Your task to perform on an android device: make emails show in primary in the gmail app Image 0: 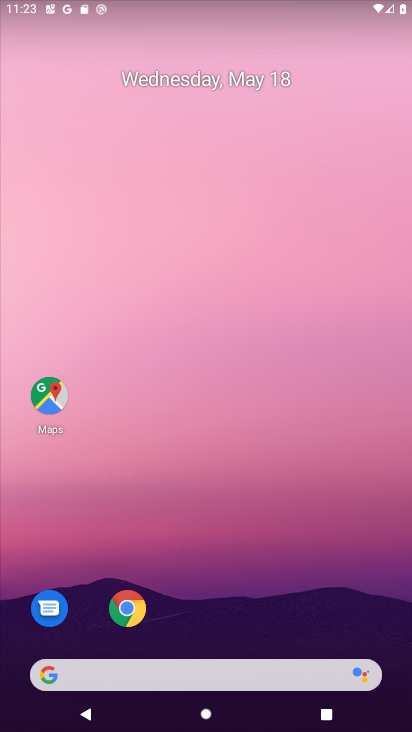
Step 0: drag from (181, 554) to (178, 129)
Your task to perform on an android device: make emails show in primary in the gmail app Image 1: 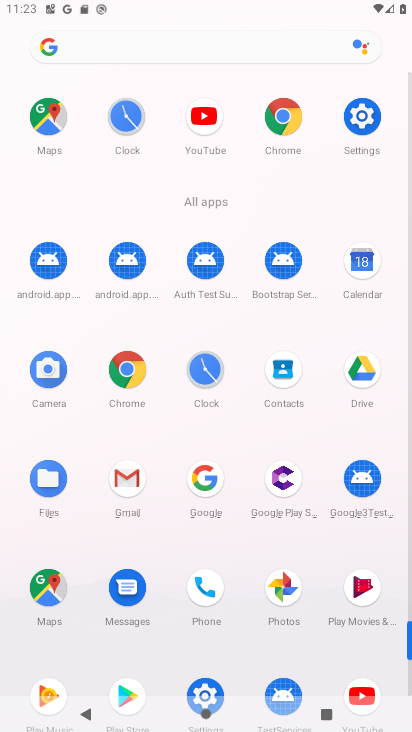
Step 1: click (135, 483)
Your task to perform on an android device: make emails show in primary in the gmail app Image 2: 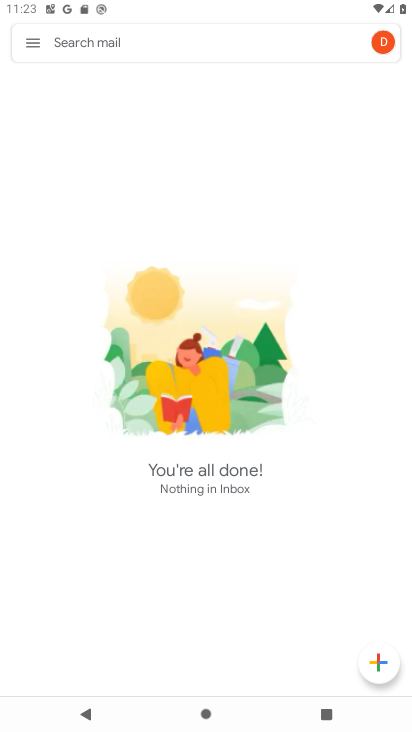
Step 2: click (30, 43)
Your task to perform on an android device: make emails show in primary in the gmail app Image 3: 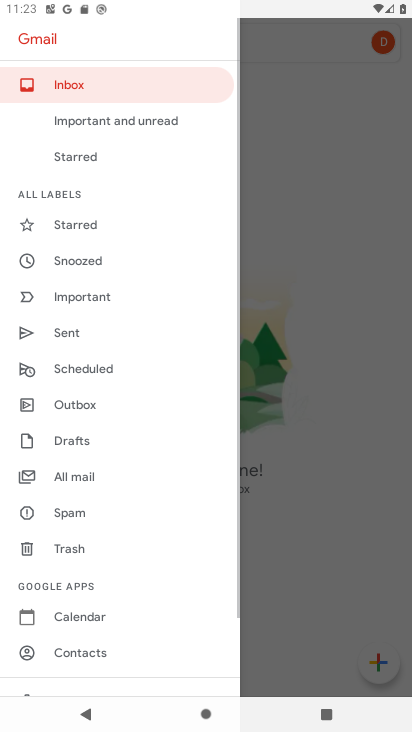
Step 3: drag from (86, 639) to (106, 251)
Your task to perform on an android device: make emails show in primary in the gmail app Image 4: 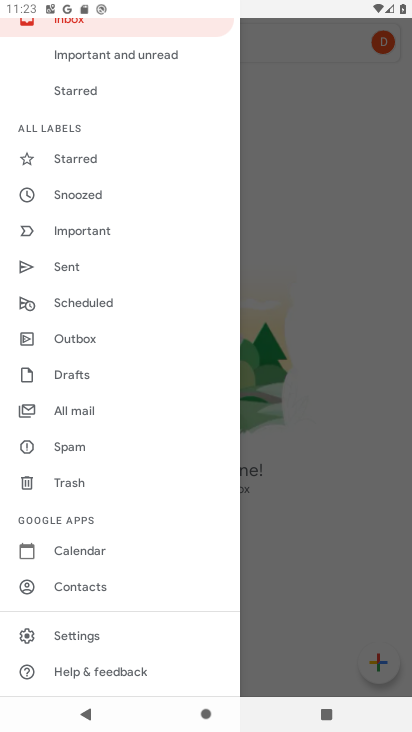
Step 4: click (68, 636)
Your task to perform on an android device: make emails show in primary in the gmail app Image 5: 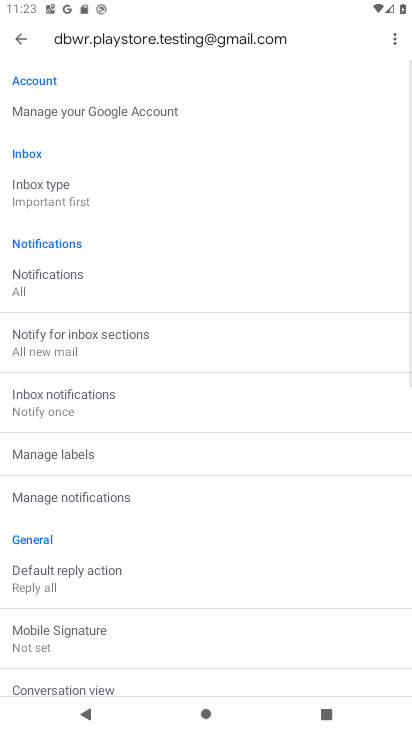
Step 5: drag from (68, 662) to (98, 425)
Your task to perform on an android device: make emails show in primary in the gmail app Image 6: 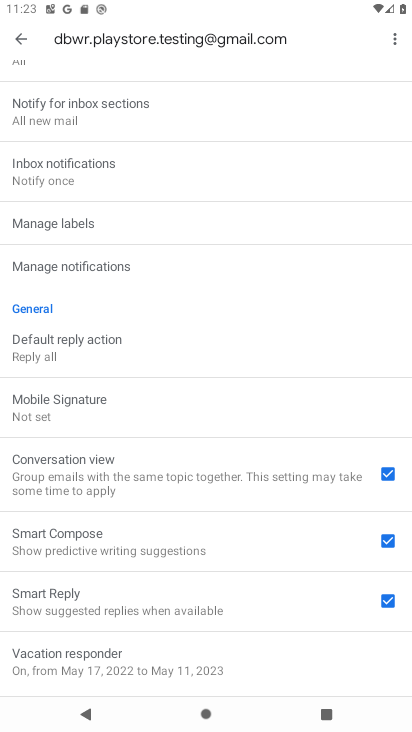
Step 6: drag from (48, 611) to (73, 505)
Your task to perform on an android device: make emails show in primary in the gmail app Image 7: 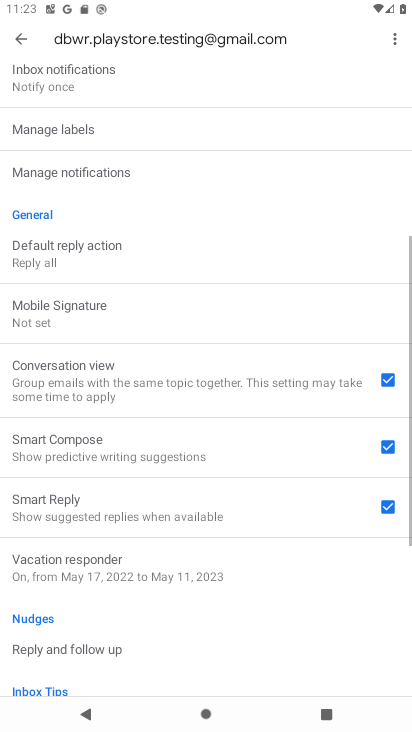
Step 7: drag from (79, 490) to (71, 682)
Your task to perform on an android device: make emails show in primary in the gmail app Image 8: 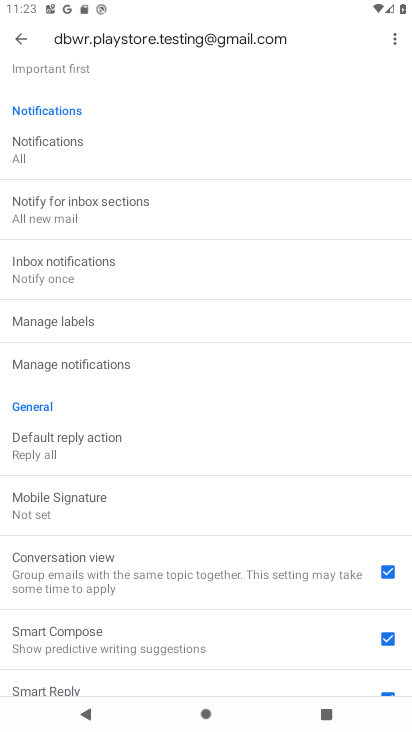
Step 8: drag from (80, 138) to (42, 281)
Your task to perform on an android device: make emails show in primary in the gmail app Image 9: 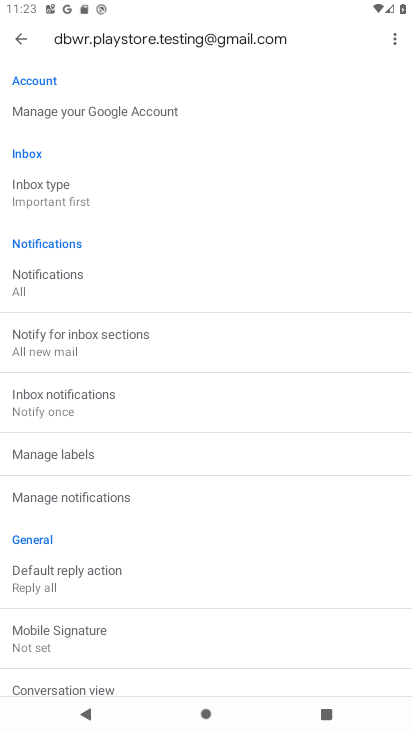
Step 9: click (49, 201)
Your task to perform on an android device: make emails show in primary in the gmail app Image 10: 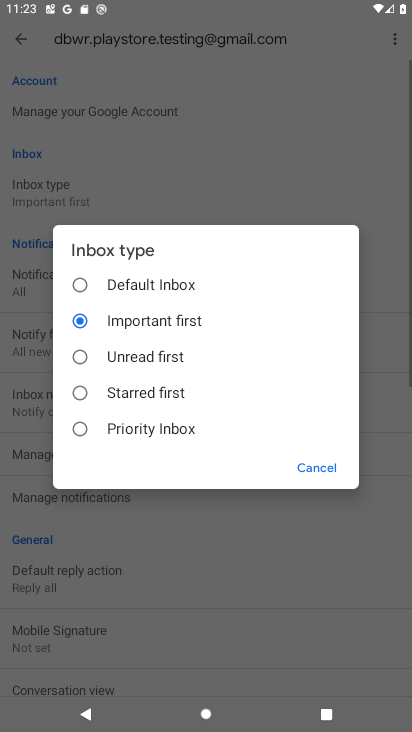
Step 10: click (80, 284)
Your task to perform on an android device: make emails show in primary in the gmail app Image 11: 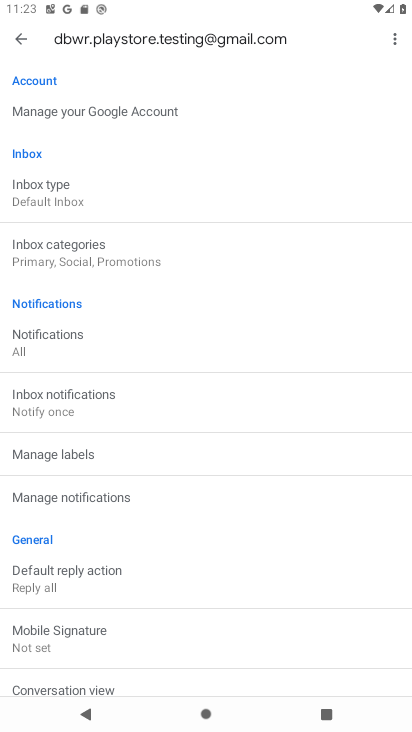
Step 11: press back button
Your task to perform on an android device: make emails show in primary in the gmail app Image 12: 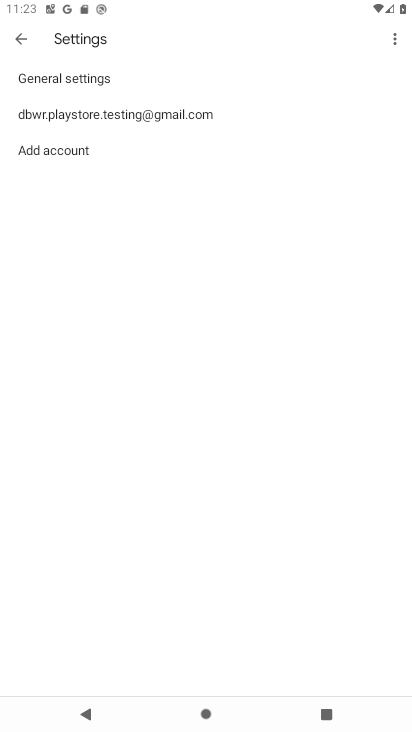
Step 12: press back button
Your task to perform on an android device: make emails show in primary in the gmail app Image 13: 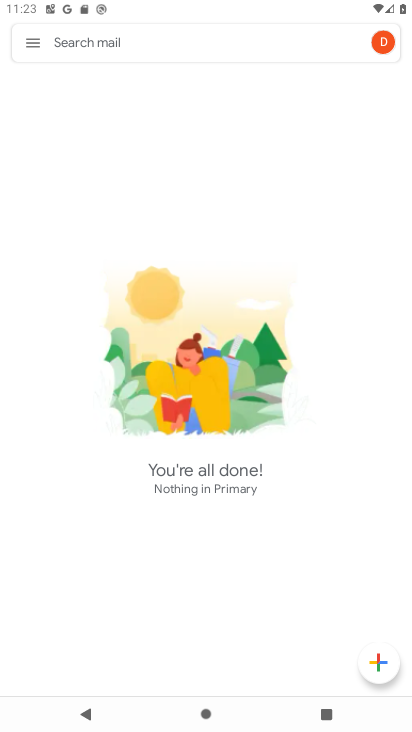
Step 13: click (32, 46)
Your task to perform on an android device: make emails show in primary in the gmail app Image 14: 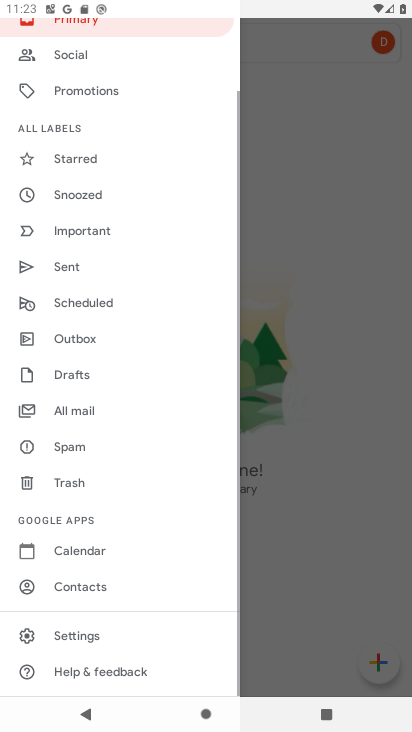
Step 14: task complete